Your task to perform on an android device: turn on priority inbox in the gmail app Image 0: 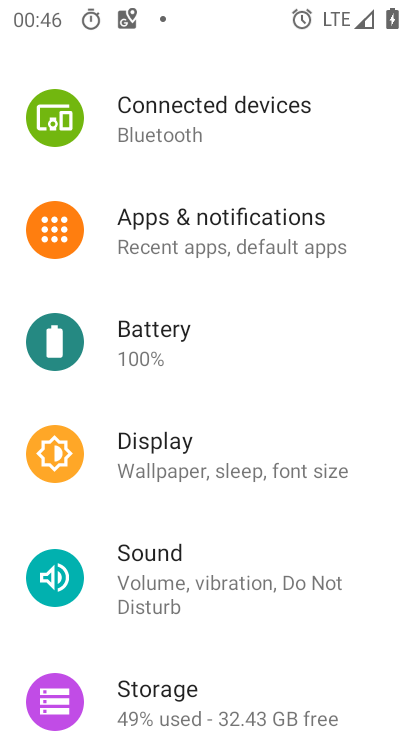
Step 0: press home button
Your task to perform on an android device: turn on priority inbox in the gmail app Image 1: 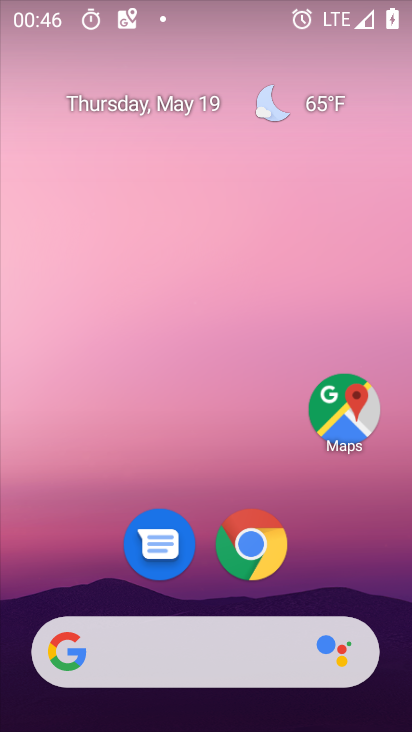
Step 1: drag from (320, 532) to (329, 114)
Your task to perform on an android device: turn on priority inbox in the gmail app Image 2: 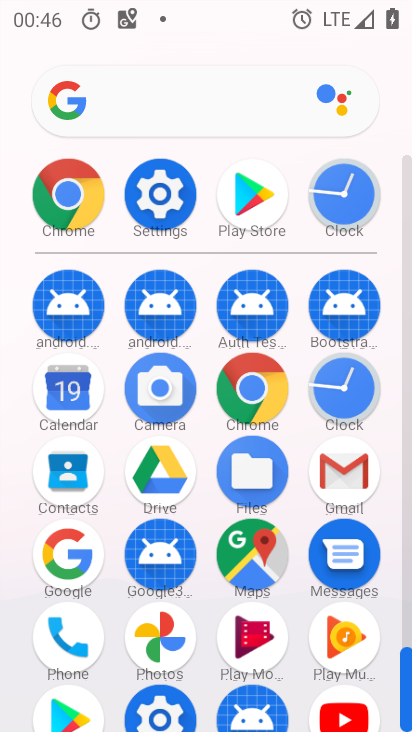
Step 2: drag from (289, 577) to (289, 407)
Your task to perform on an android device: turn on priority inbox in the gmail app Image 3: 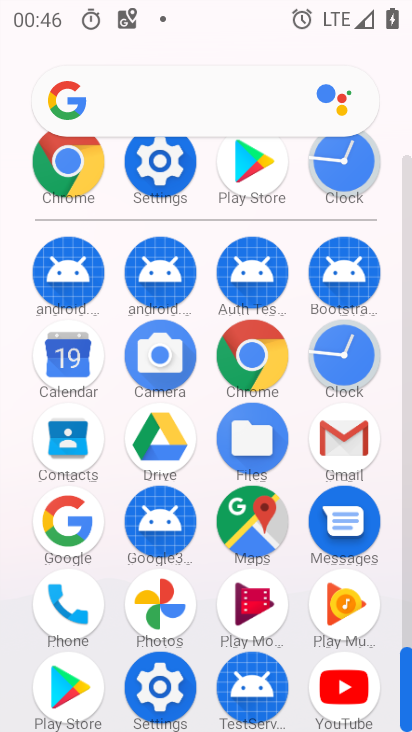
Step 3: drag from (388, 284) to (369, 446)
Your task to perform on an android device: turn on priority inbox in the gmail app Image 4: 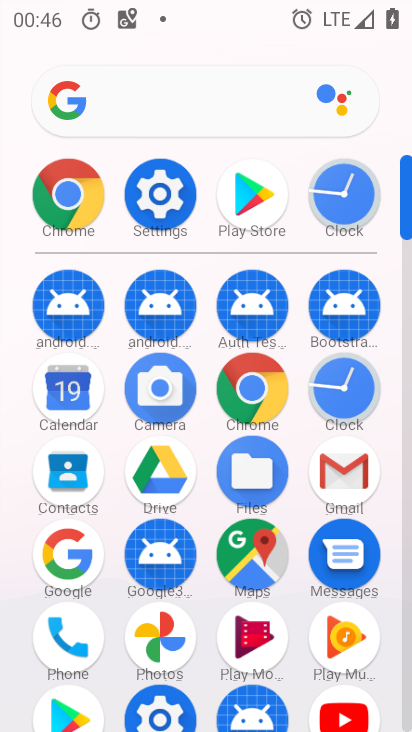
Step 4: drag from (290, 605) to (309, 399)
Your task to perform on an android device: turn on priority inbox in the gmail app Image 5: 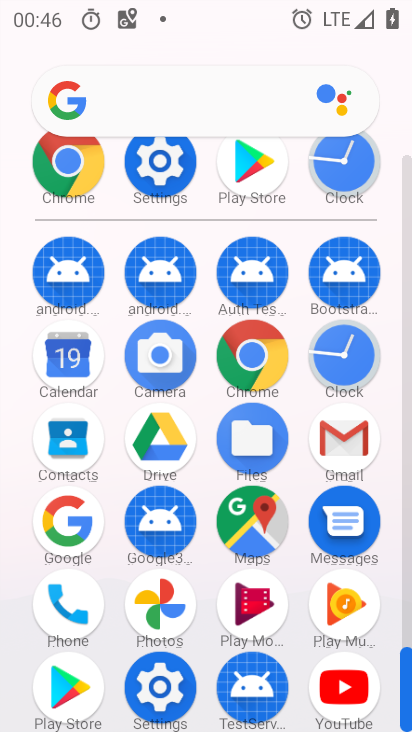
Step 5: click (339, 449)
Your task to perform on an android device: turn on priority inbox in the gmail app Image 6: 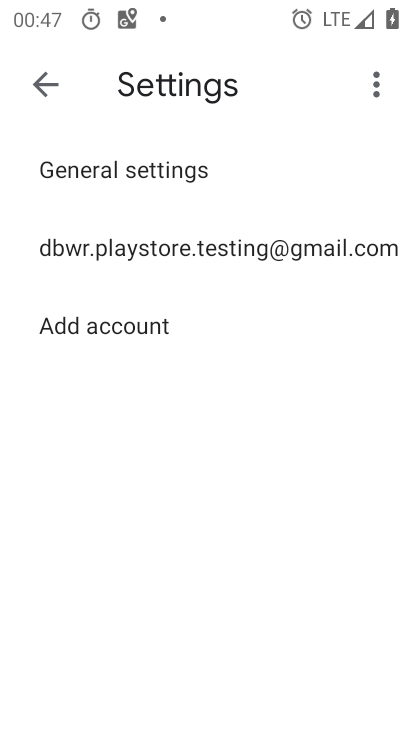
Step 6: click (252, 252)
Your task to perform on an android device: turn on priority inbox in the gmail app Image 7: 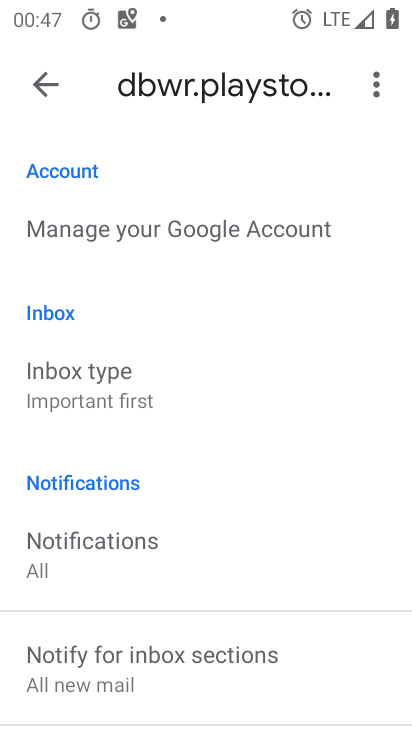
Step 7: drag from (279, 588) to (288, 335)
Your task to perform on an android device: turn on priority inbox in the gmail app Image 8: 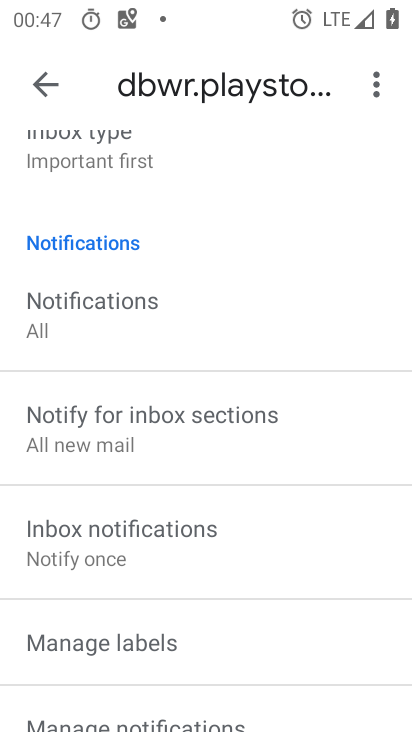
Step 8: drag from (303, 559) to (303, 418)
Your task to perform on an android device: turn on priority inbox in the gmail app Image 9: 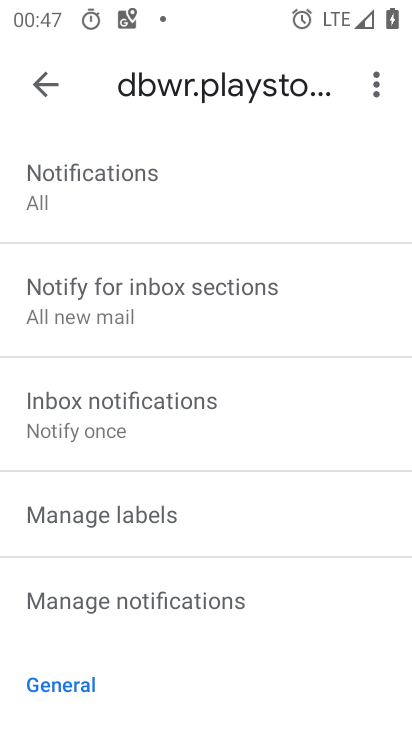
Step 9: drag from (294, 605) to (301, 420)
Your task to perform on an android device: turn on priority inbox in the gmail app Image 10: 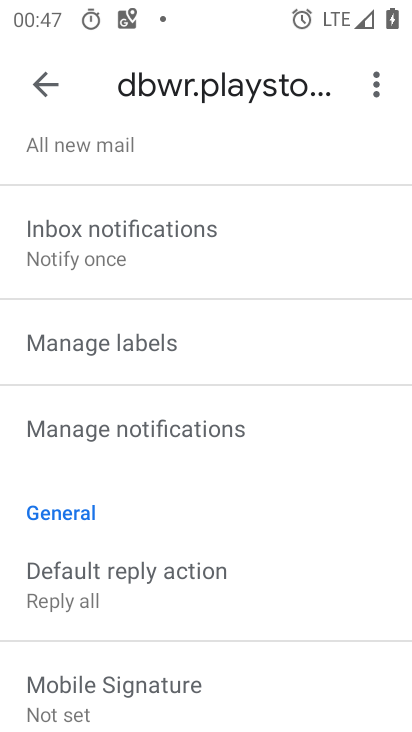
Step 10: drag from (309, 585) to (316, 500)
Your task to perform on an android device: turn on priority inbox in the gmail app Image 11: 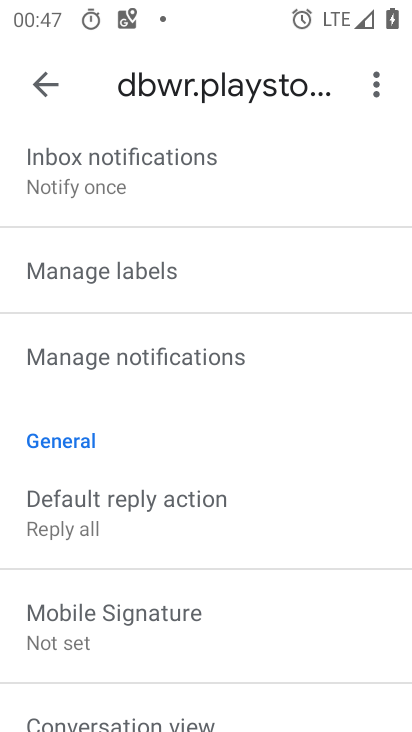
Step 11: drag from (317, 619) to (317, 479)
Your task to perform on an android device: turn on priority inbox in the gmail app Image 12: 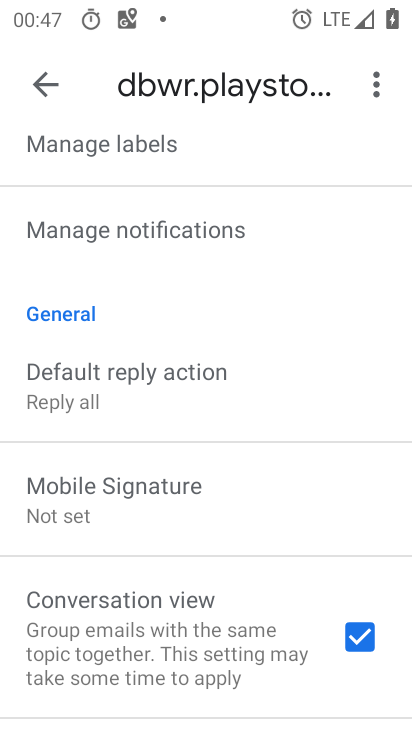
Step 12: drag from (294, 651) to (290, 442)
Your task to perform on an android device: turn on priority inbox in the gmail app Image 13: 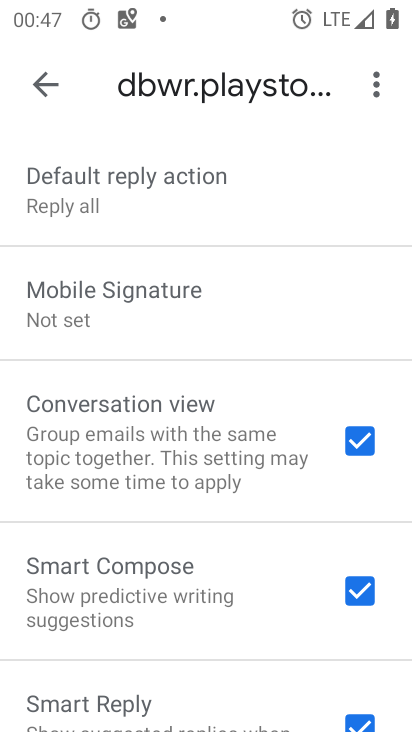
Step 13: drag from (291, 633) to (291, 483)
Your task to perform on an android device: turn on priority inbox in the gmail app Image 14: 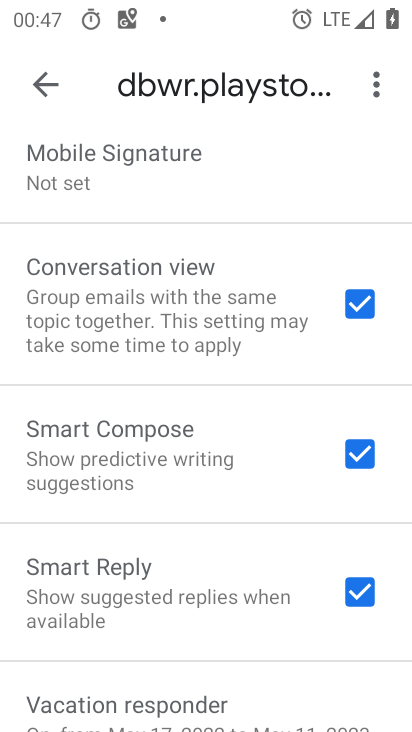
Step 14: drag from (276, 676) to (275, 506)
Your task to perform on an android device: turn on priority inbox in the gmail app Image 15: 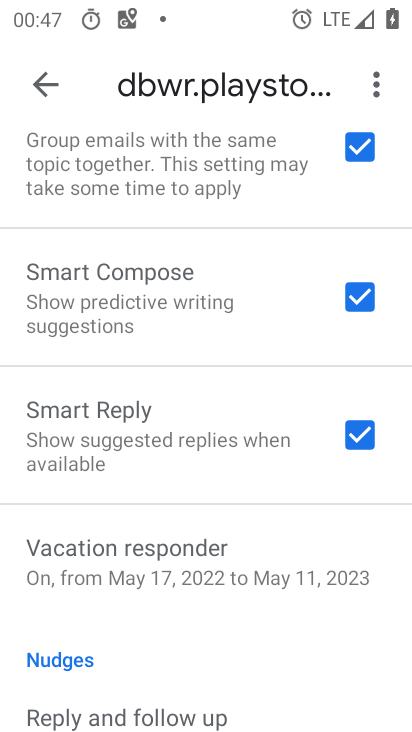
Step 15: drag from (253, 681) to (255, 477)
Your task to perform on an android device: turn on priority inbox in the gmail app Image 16: 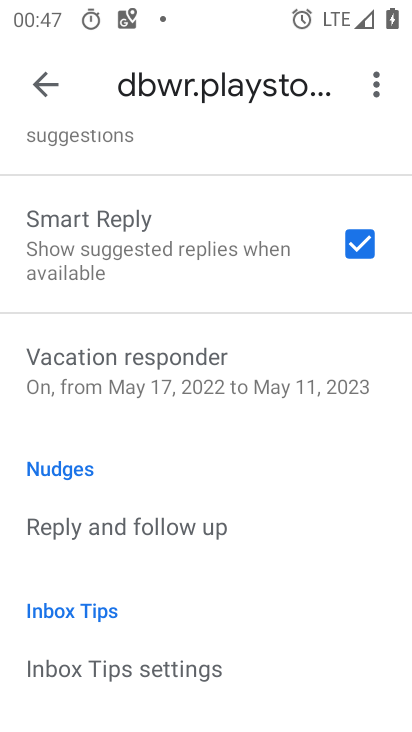
Step 16: drag from (288, 618) to (290, 454)
Your task to perform on an android device: turn on priority inbox in the gmail app Image 17: 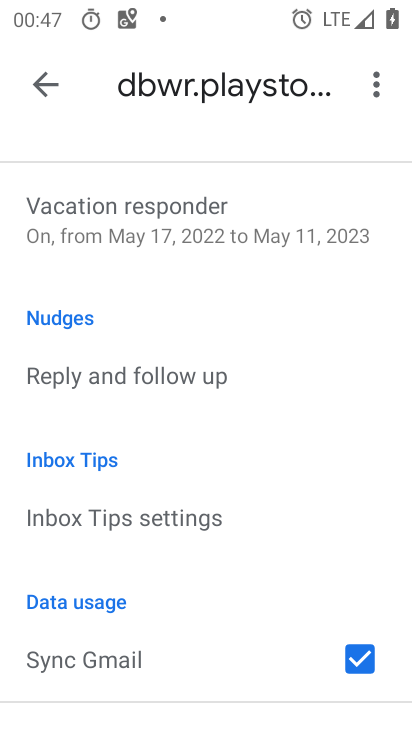
Step 17: drag from (277, 656) to (271, 436)
Your task to perform on an android device: turn on priority inbox in the gmail app Image 18: 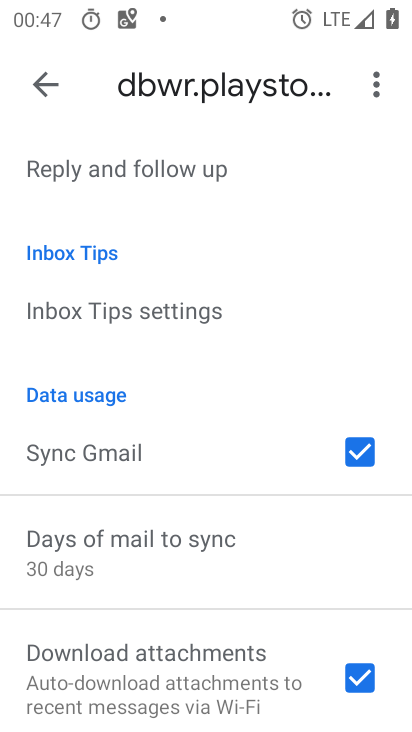
Step 18: drag from (273, 648) to (272, 438)
Your task to perform on an android device: turn on priority inbox in the gmail app Image 19: 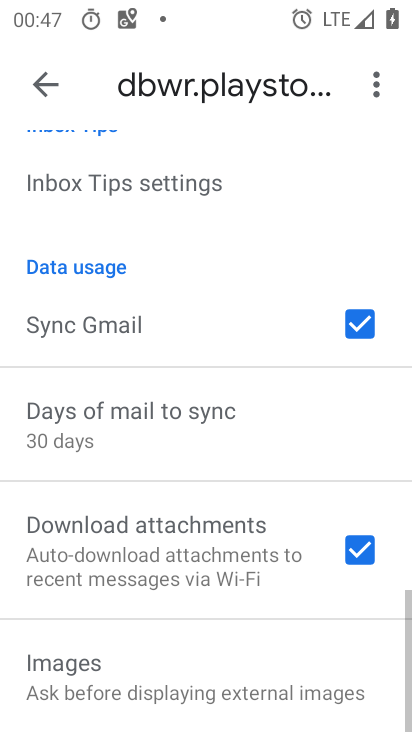
Step 19: drag from (261, 630) to (263, 438)
Your task to perform on an android device: turn on priority inbox in the gmail app Image 20: 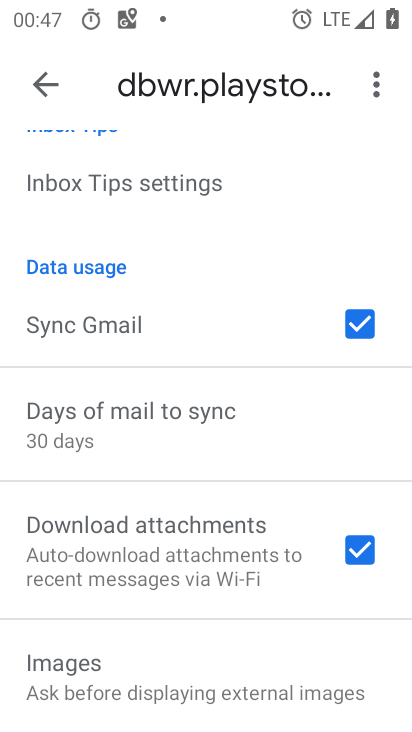
Step 20: drag from (265, 251) to (265, 430)
Your task to perform on an android device: turn on priority inbox in the gmail app Image 21: 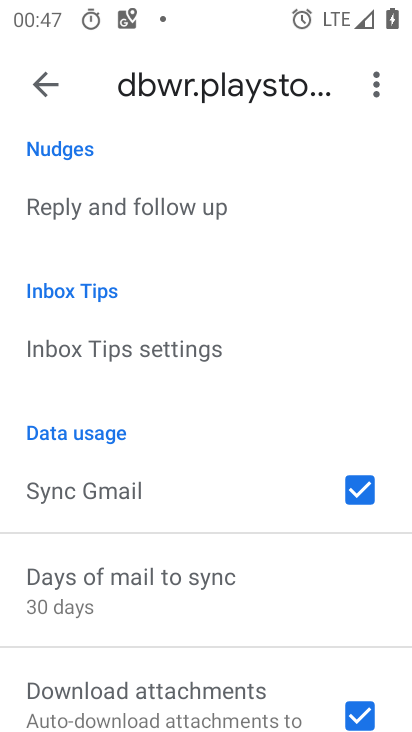
Step 21: drag from (275, 240) to (252, 468)
Your task to perform on an android device: turn on priority inbox in the gmail app Image 22: 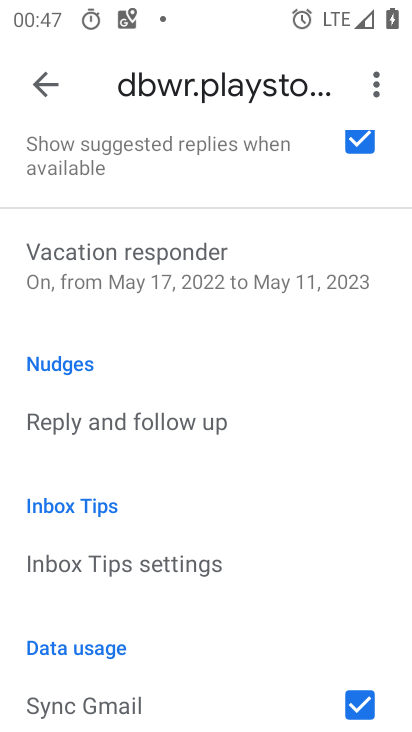
Step 22: drag from (265, 206) to (252, 419)
Your task to perform on an android device: turn on priority inbox in the gmail app Image 23: 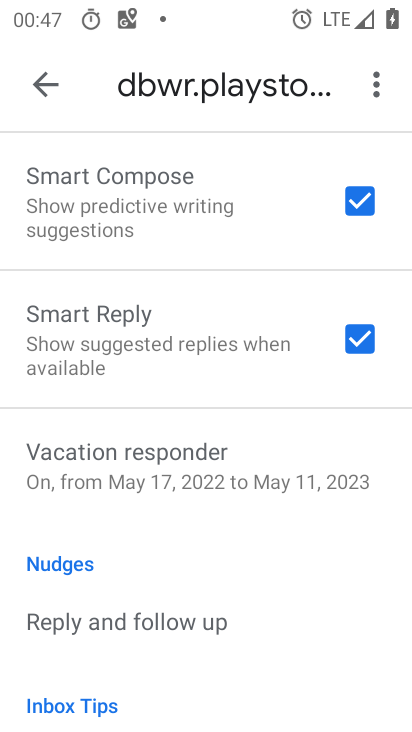
Step 23: drag from (263, 230) to (262, 370)
Your task to perform on an android device: turn on priority inbox in the gmail app Image 24: 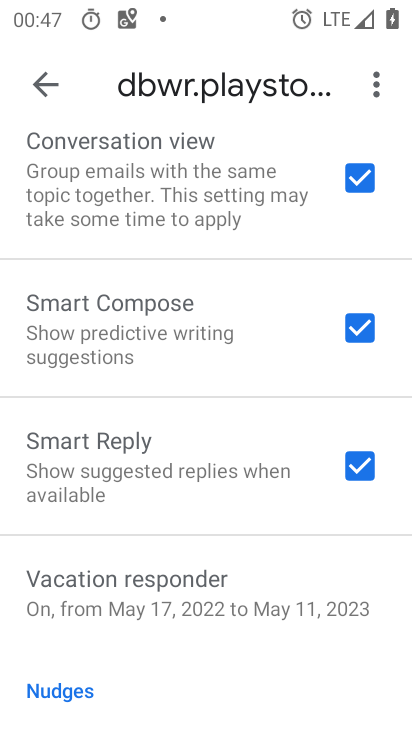
Step 24: drag from (264, 203) to (264, 427)
Your task to perform on an android device: turn on priority inbox in the gmail app Image 25: 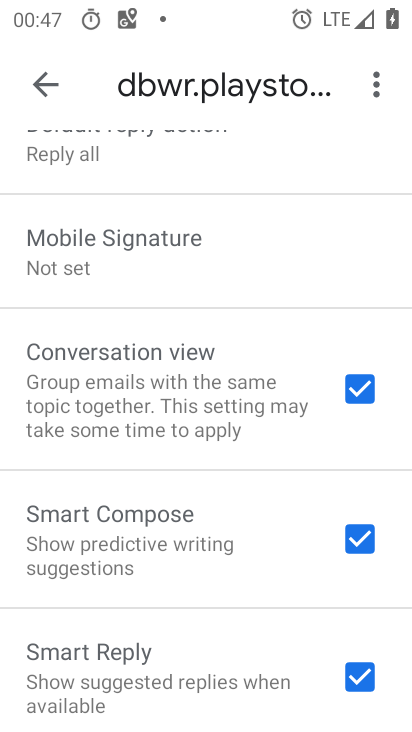
Step 25: drag from (263, 169) to (241, 391)
Your task to perform on an android device: turn on priority inbox in the gmail app Image 26: 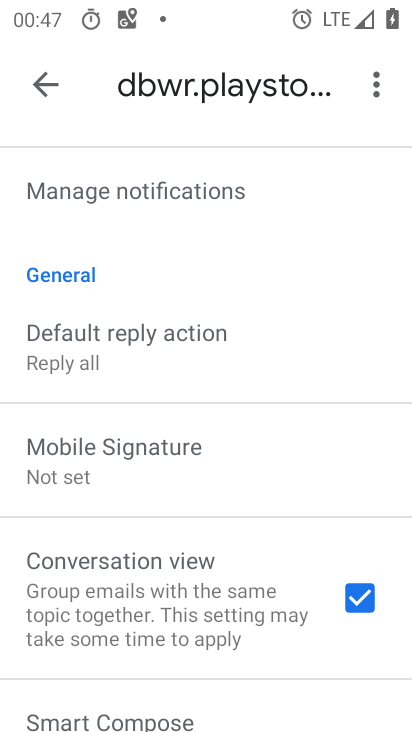
Step 26: drag from (263, 168) to (263, 387)
Your task to perform on an android device: turn on priority inbox in the gmail app Image 27: 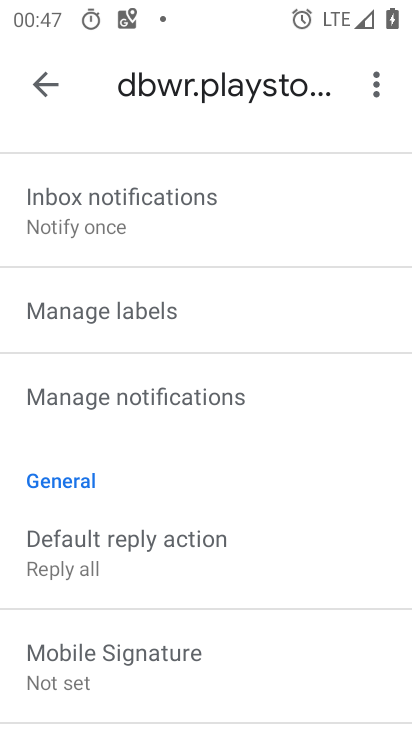
Step 27: drag from (268, 166) to (248, 368)
Your task to perform on an android device: turn on priority inbox in the gmail app Image 28: 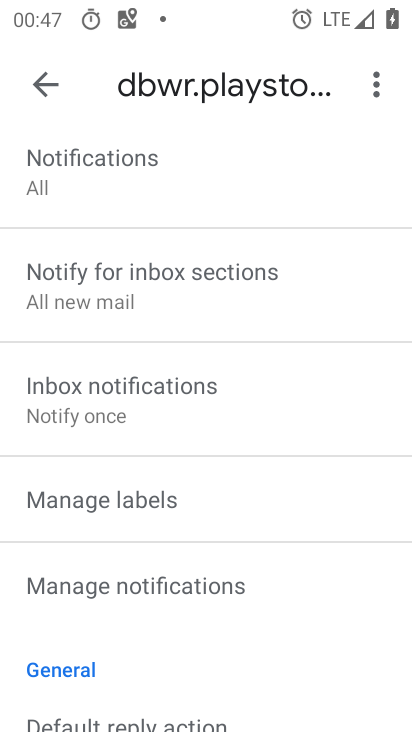
Step 28: drag from (255, 173) to (229, 387)
Your task to perform on an android device: turn on priority inbox in the gmail app Image 29: 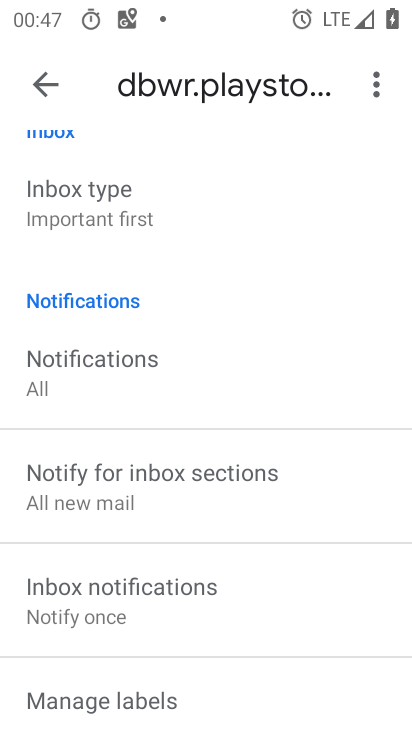
Step 29: click (91, 207)
Your task to perform on an android device: turn on priority inbox in the gmail app Image 30: 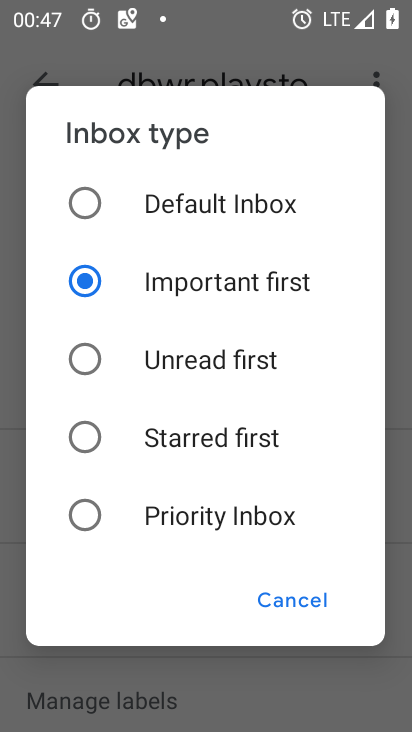
Step 30: click (179, 517)
Your task to perform on an android device: turn on priority inbox in the gmail app Image 31: 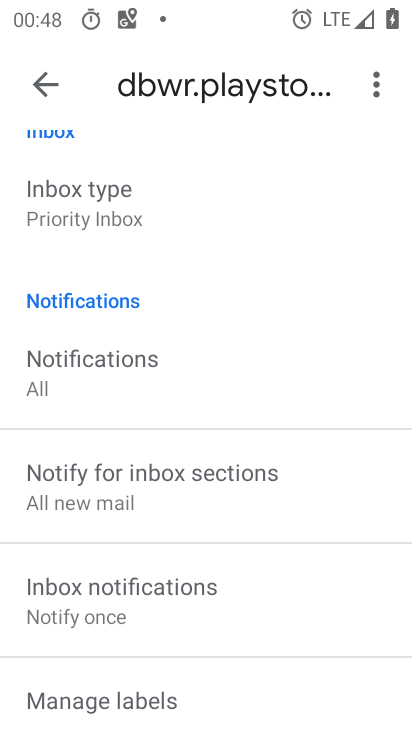
Step 31: task complete